Your task to perform on an android device: check the backup settings in the google photos Image 0: 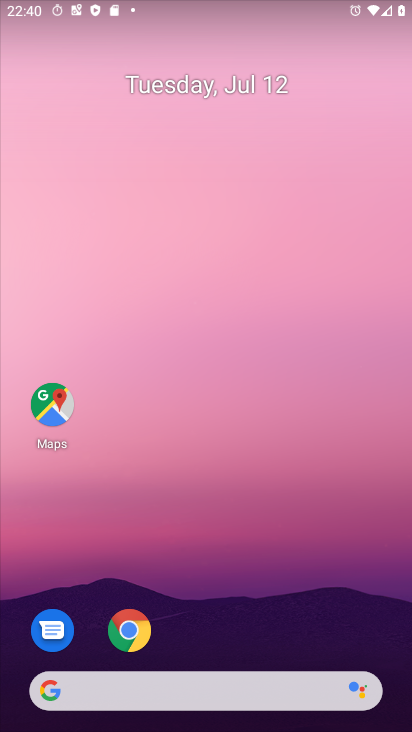
Step 0: drag from (253, 613) to (372, 60)
Your task to perform on an android device: check the backup settings in the google photos Image 1: 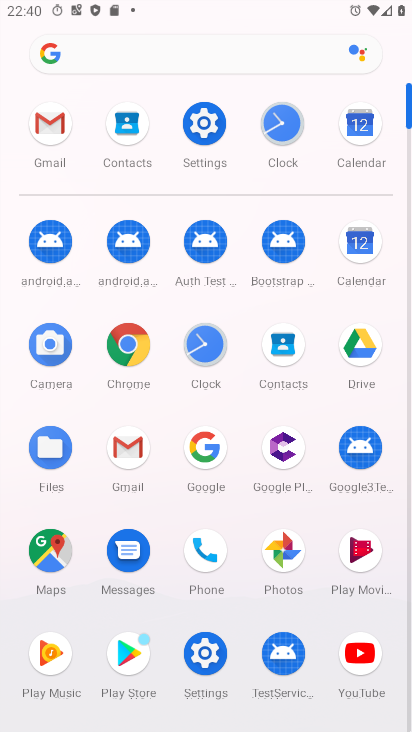
Step 1: click (276, 569)
Your task to perform on an android device: check the backup settings in the google photos Image 2: 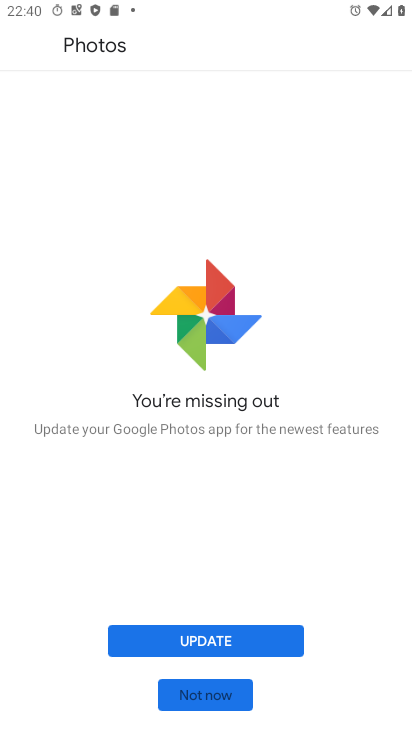
Step 2: click (210, 681)
Your task to perform on an android device: check the backup settings in the google photos Image 3: 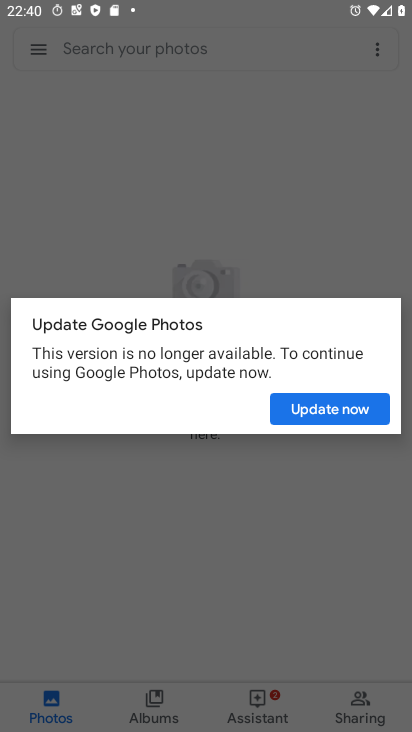
Step 3: click (329, 401)
Your task to perform on an android device: check the backup settings in the google photos Image 4: 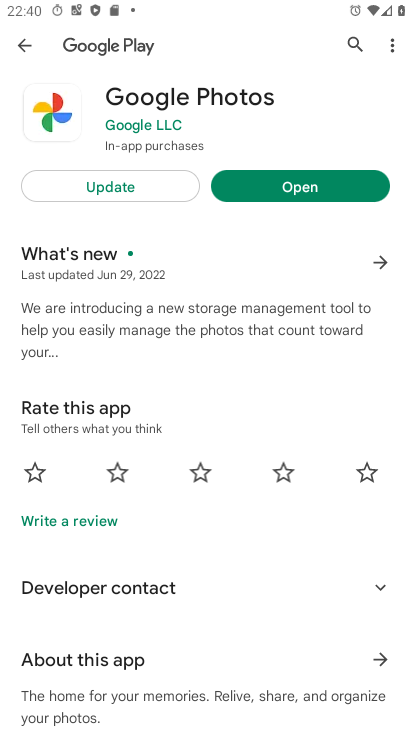
Step 4: click (30, 35)
Your task to perform on an android device: check the backup settings in the google photos Image 5: 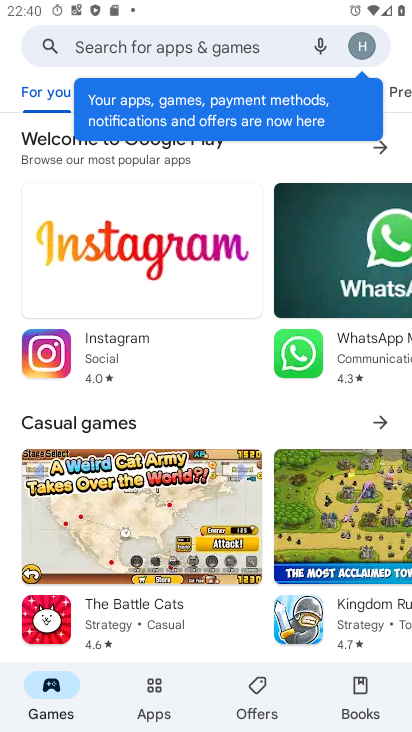
Step 5: press back button
Your task to perform on an android device: check the backup settings in the google photos Image 6: 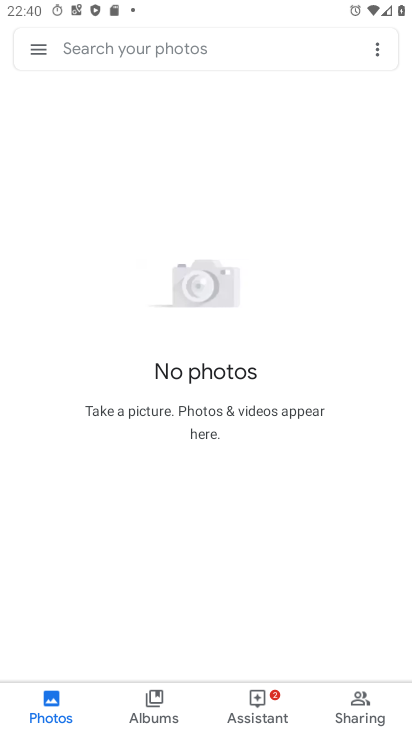
Step 6: click (41, 45)
Your task to perform on an android device: check the backup settings in the google photos Image 7: 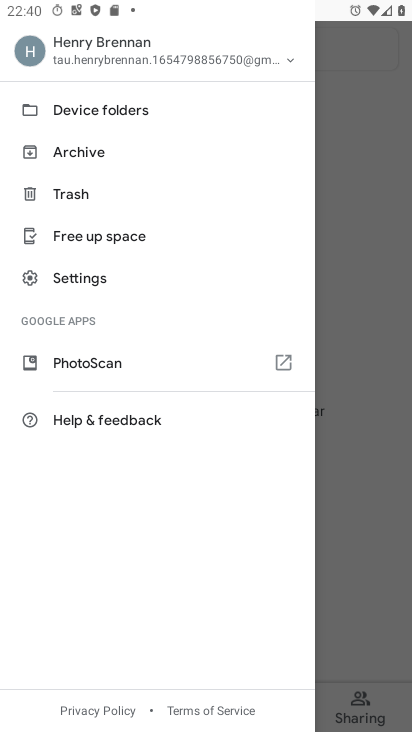
Step 7: click (95, 276)
Your task to perform on an android device: check the backup settings in the google photos Image 8: 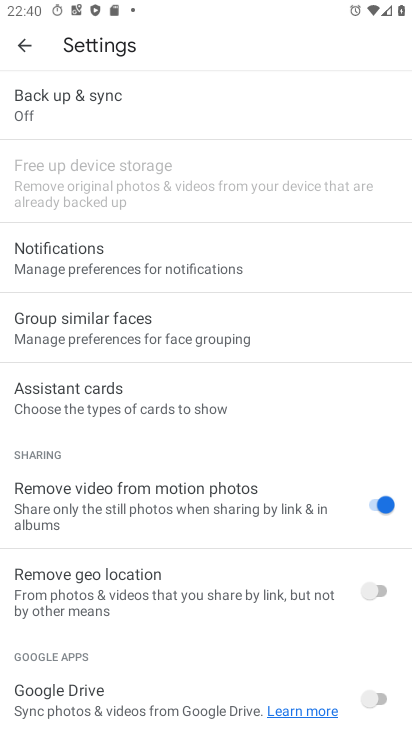
Step 8: click (138, 109)
Your task to perform on an android device: check the backup settings in the google photos Image 9: 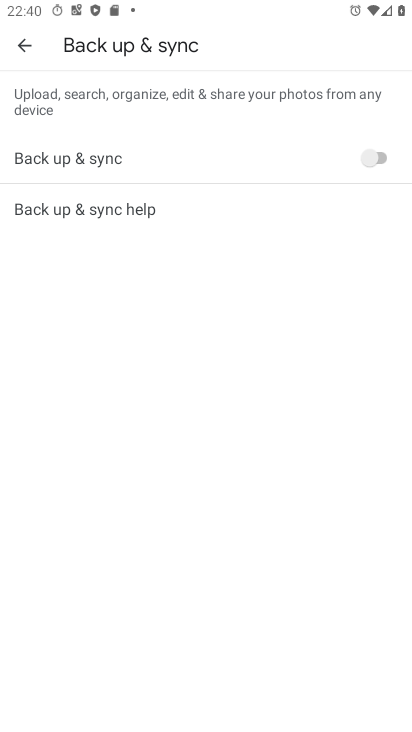
Step 9: task complete